Your task to perform on an android device: Open Google Maps and go to "Timeline" Image 0: 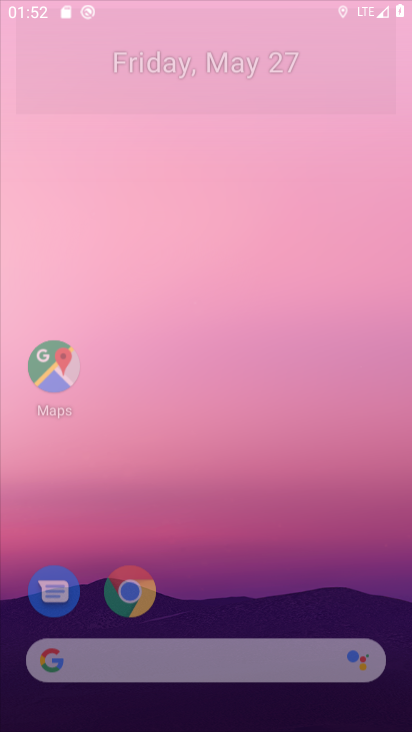
Step 0: click (386, 54)
Your task to perform on an android device: Open Google Maps and go to "Timeline" Image 1: 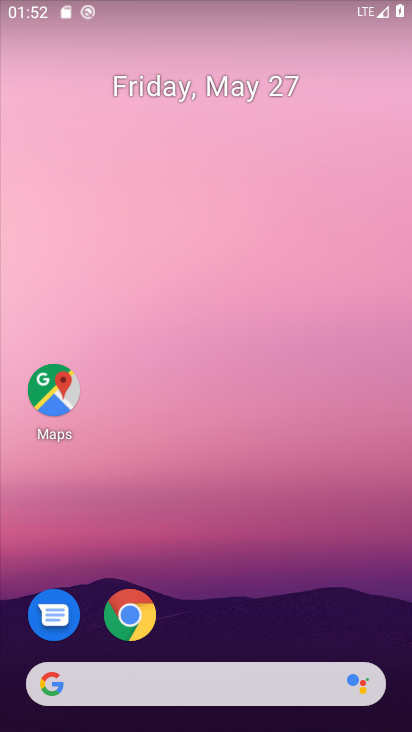
Step 1: drag from (360, 615) to (353, 202)
Your task to perform on an android device: Open Google Maps and go to "Timeline" Image 2: 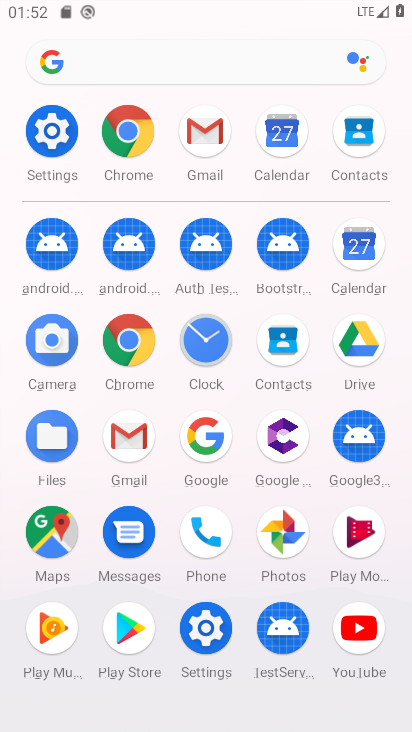
Step 2: click (57, 524)
Your task to perform on an android device: Open Google Maps and go to "Timeline" Image 3: 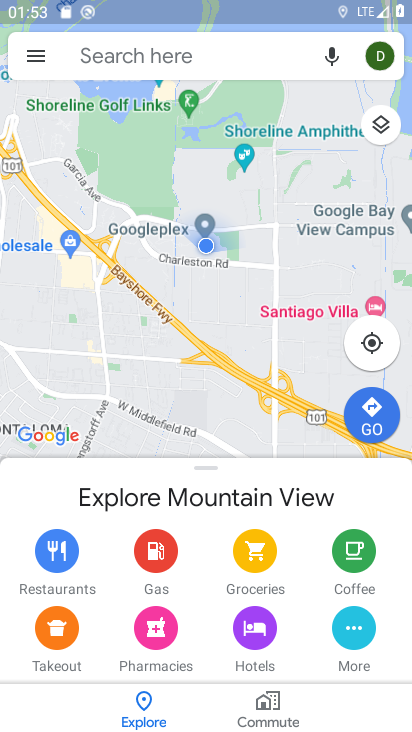
Step 3: click (38, 54)
Your task to perform on an android device: Open Google Maps and go to "Timeline" Image 4: 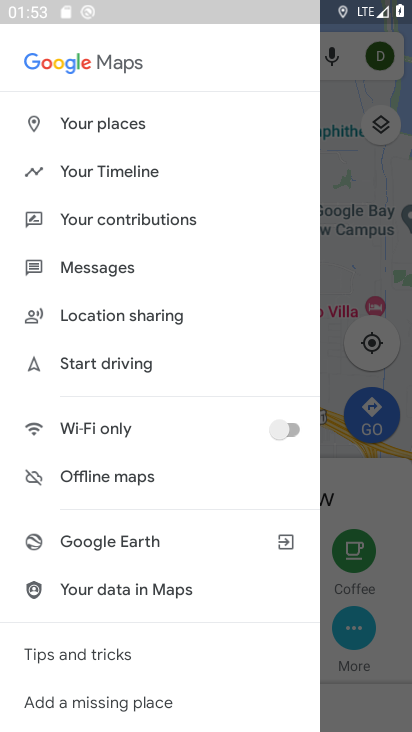
Step 4: click (133, 169)
Your task to perform on an android device: Open Google Maps and go to "Timeline" Image 5: 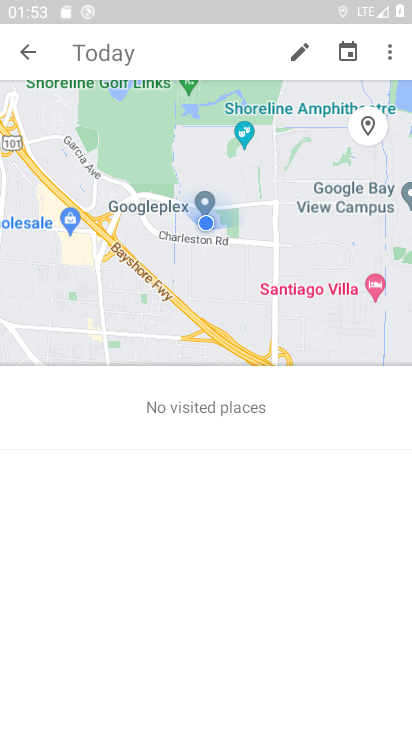
Step 5: task complete